Your task to perform on an android device: check data usage Image 0: 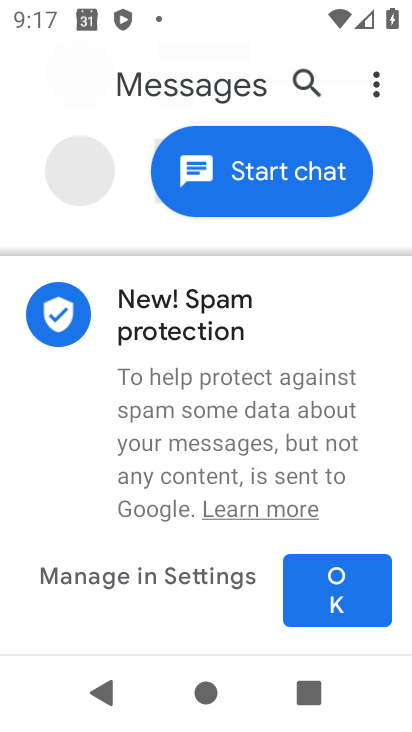
Step 0: press back button
Your task to perform on an android device: check data usage Image 1: 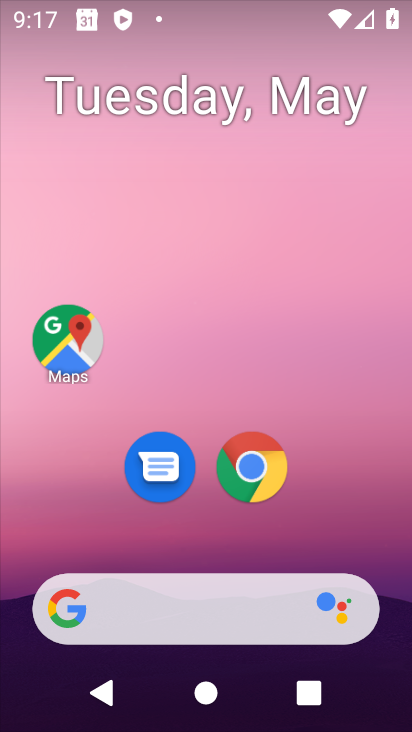
Step 1: drag from (363, 535) to (244, 19)
Your task to perform on an android device: check data usage Image 2: 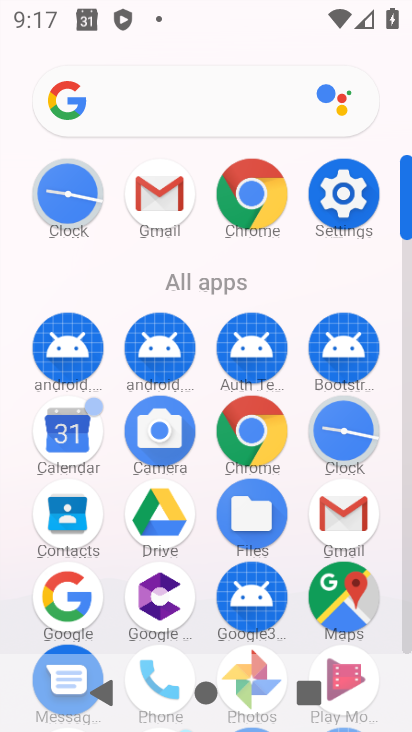
Step 2: click (346, 190)
Your task to perform on an android device: check data usage Image 3: 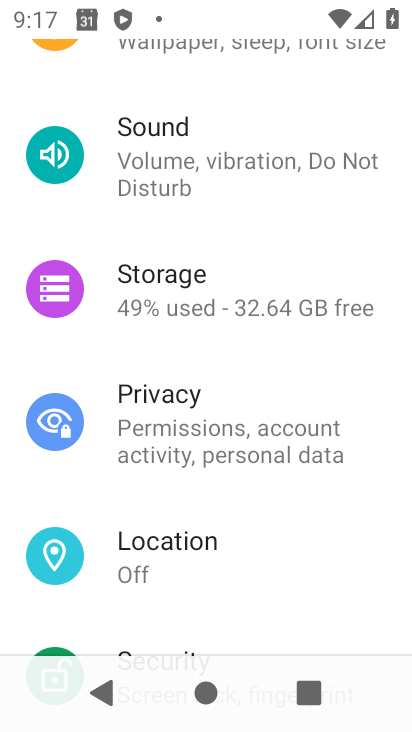
Step 3: drag from (264, 189) to (263, 584)
Your task to perform on an android device: check data usage Image 4: 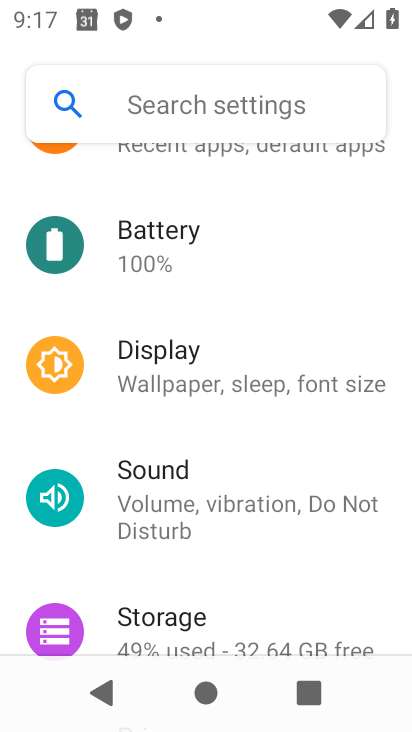
Step 4: drag from (256, 215) to (240, 596)
Your task to perform on an android device: check data usage Image 5: 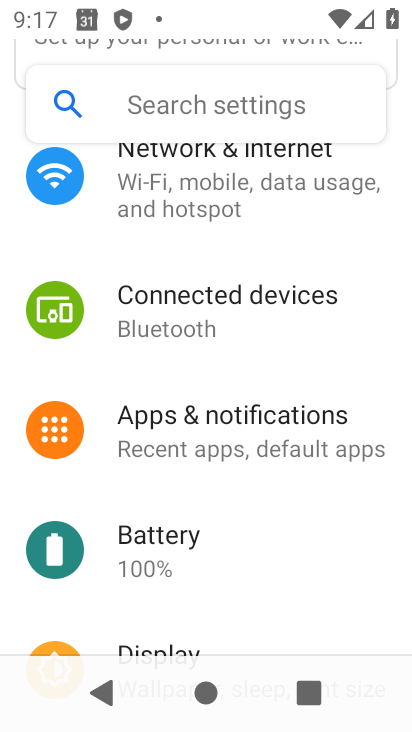
Step 5: drag from (267, 184) to (270, 545)
Your task to perform on an android device: check data usage Image 6: 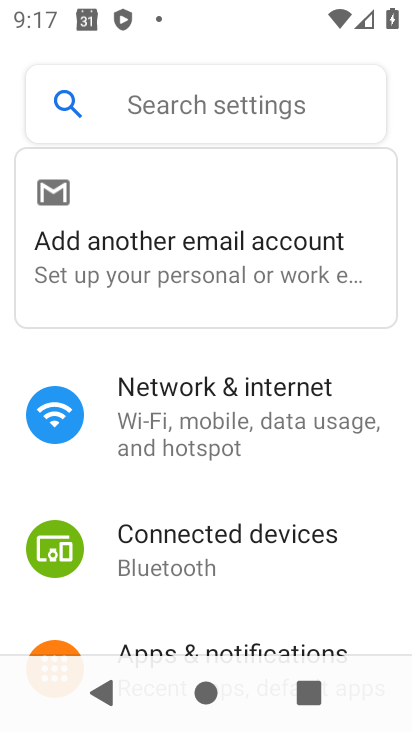
Step 6: click (232, 410)
Your task to perform on an android device: check data usage Image 7: 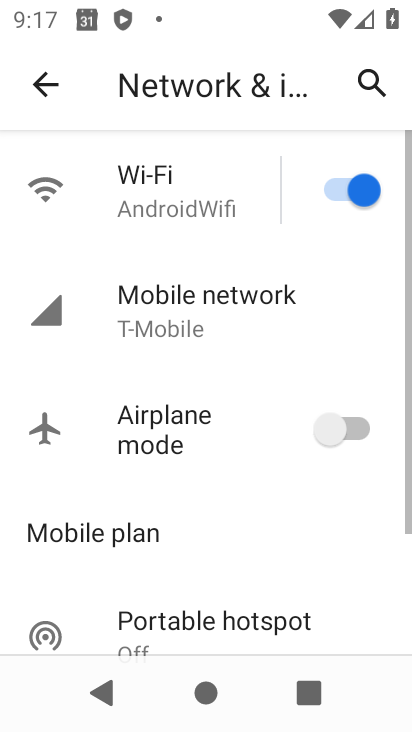
Step 7: click (187, 318)
Your task to perform on an android device: check data usage Image 8: 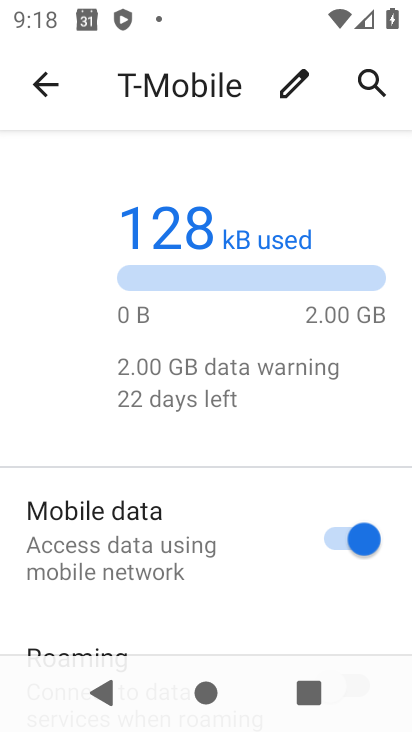
Step 8: task complete